Your task to perform on an android device: turn off priority inbox in the gmail app Image 0: 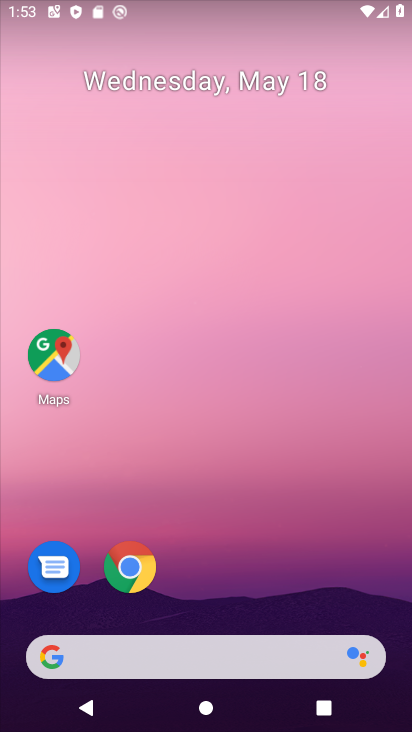
Step 0: drag from (261, 596) to (253, 138)
Your task to perform on an android device: turn off priority inbox in the gmail app Image 1: 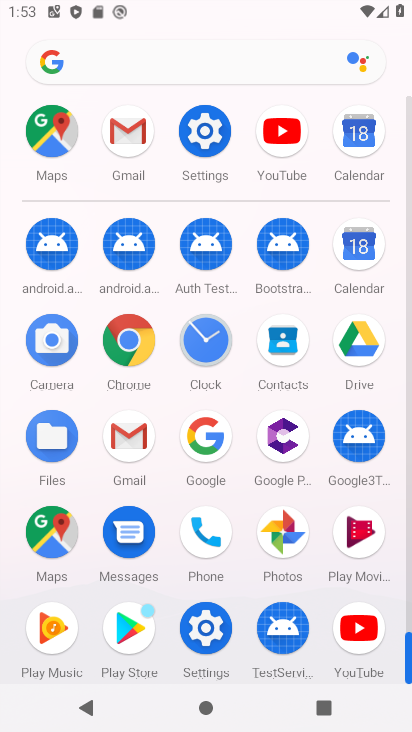
Step 1: click (120, 143)
Your task to perform on an android device: turn off priority inbox in the gmail app Image 2: 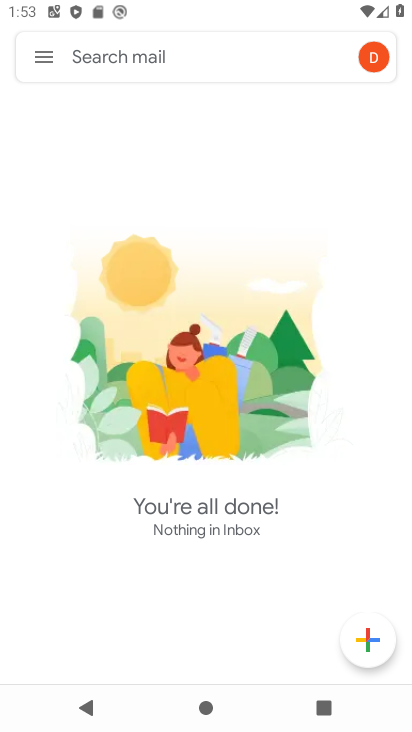
Step 2: click (46, 59)
Your task to perform on an android device: turn off priority inbox in the gmail app Image 3: 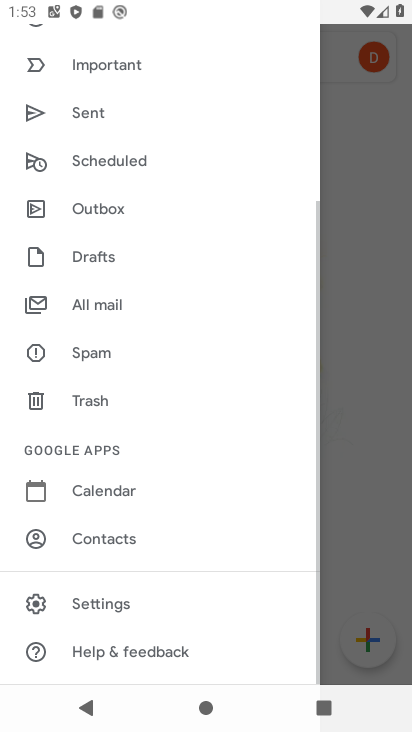
Step 3: click (168, 613)
Your task to perform on an android device: turn off priority inbox in the gmail app Image 4: 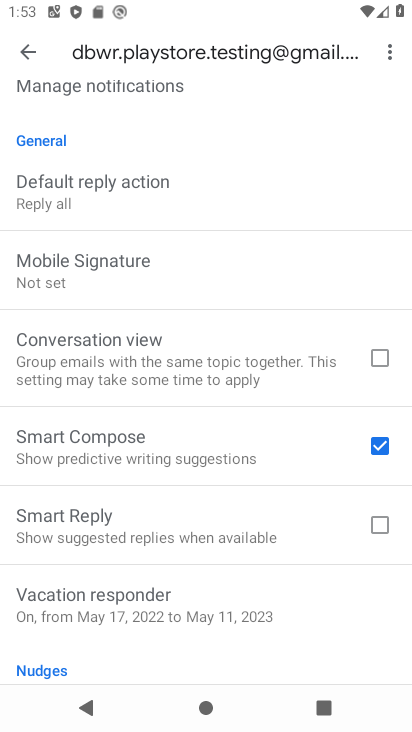
Step 4: drag from (209, 194) to (217, 615)
Your task to perform on an android device: turn off priority inbox in the gmail app Image 5: 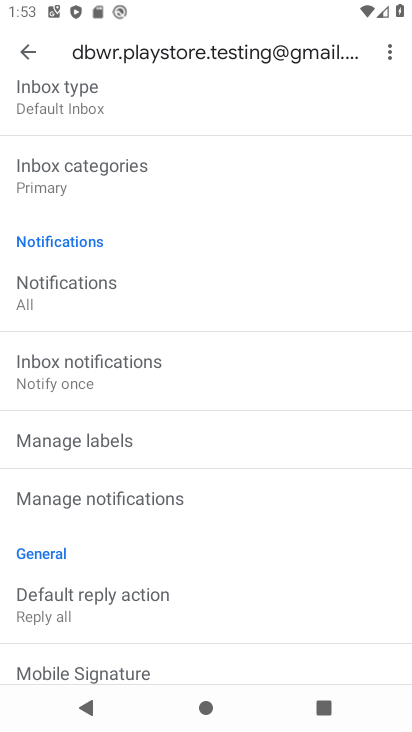
Step 5: drag from (186, 180) to (217, 540)
Your task to perform on an android device: turn off priority inbox in the gmail app Image 6: 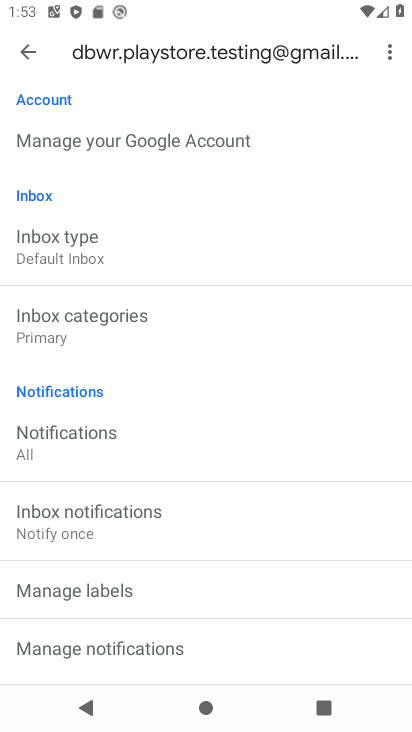
Step 6: click (132, 240)
Your task to perform on an android device: turn off priority inbox in the gmail app Image 7: 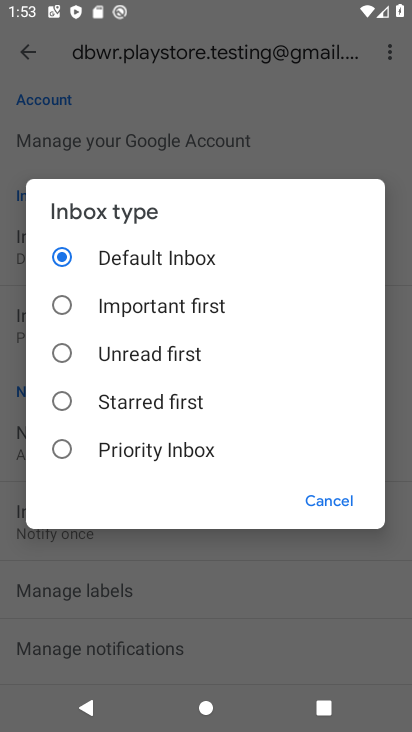
Step 7: task complete